Your task to perform on an android device: turn pop-ups off in chrome Image 0: 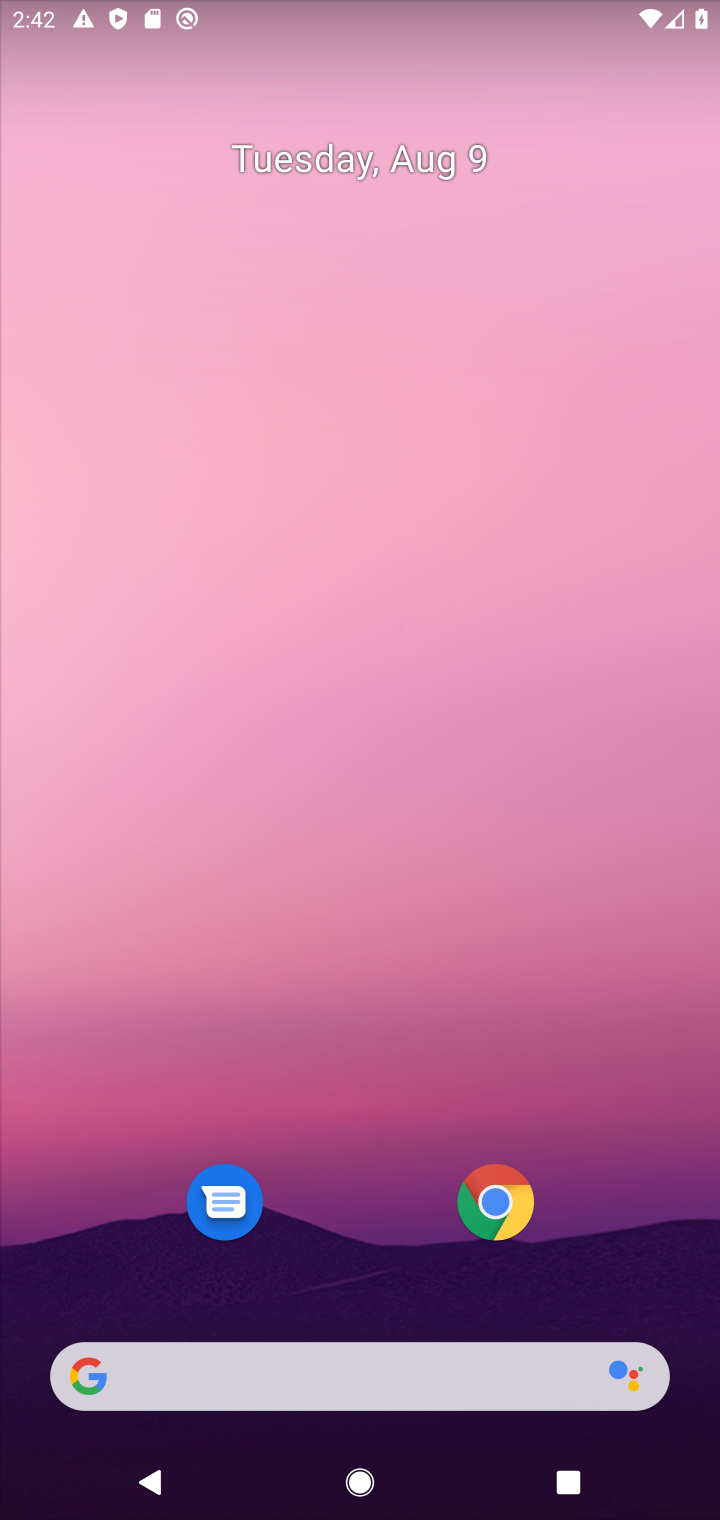
Step 0: press home button
Your task to perform on an android device: turn pop-ups off in chrome Image 1: 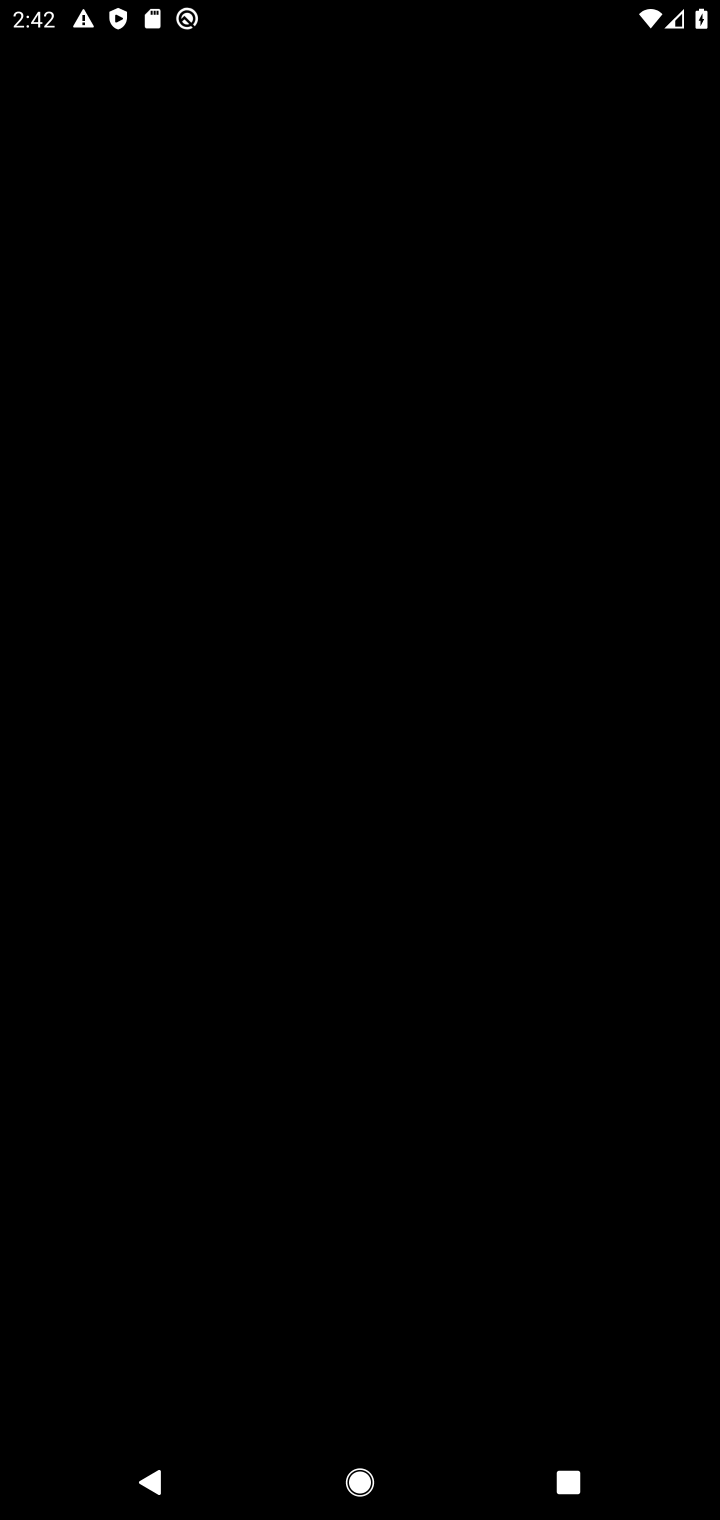
Step 1: drag from (509, 1371) to (544, 734)
Your task to perform on an android device: turn pop-ups off in chrome Image 2: 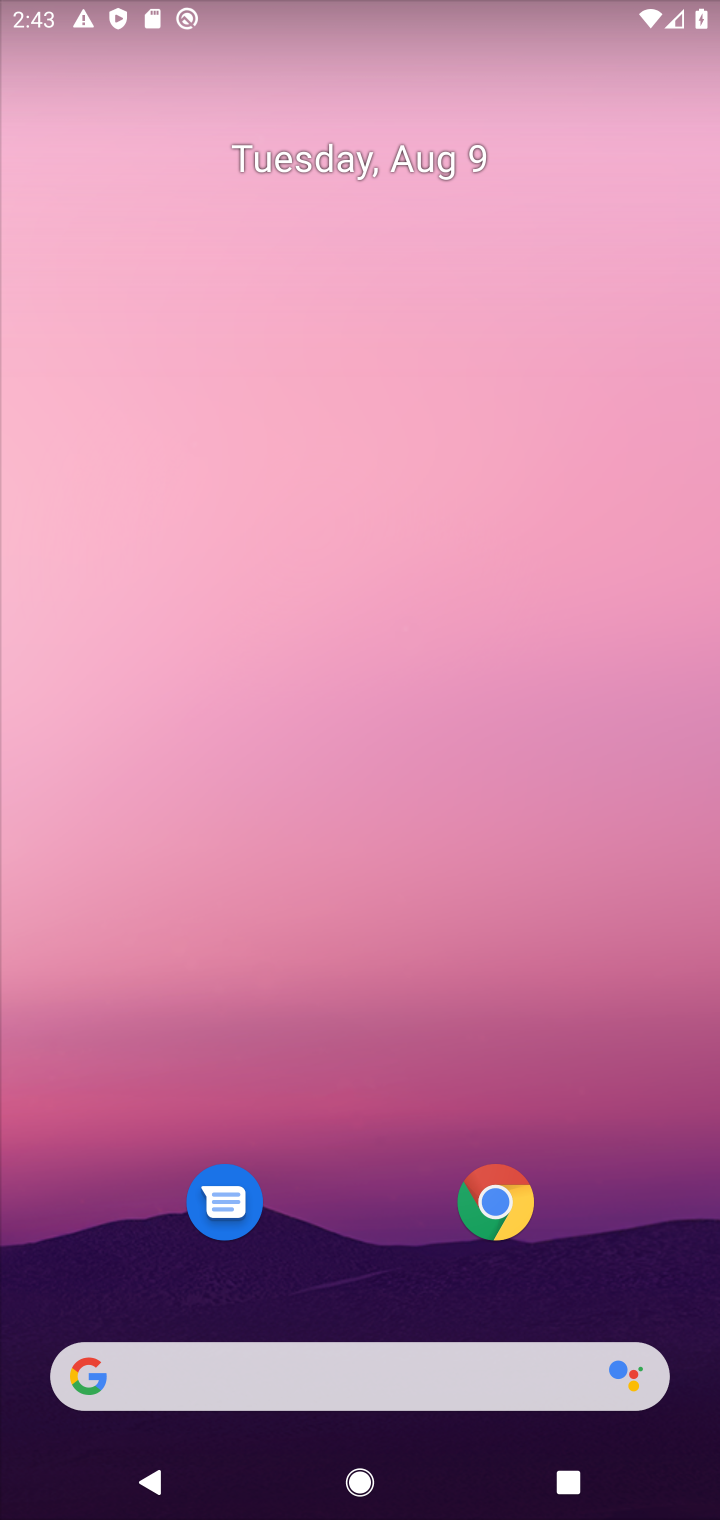
Step 2: click (499, 1194)
Your task to perform on an android device: turn pop-ups off in chrome Image 3: 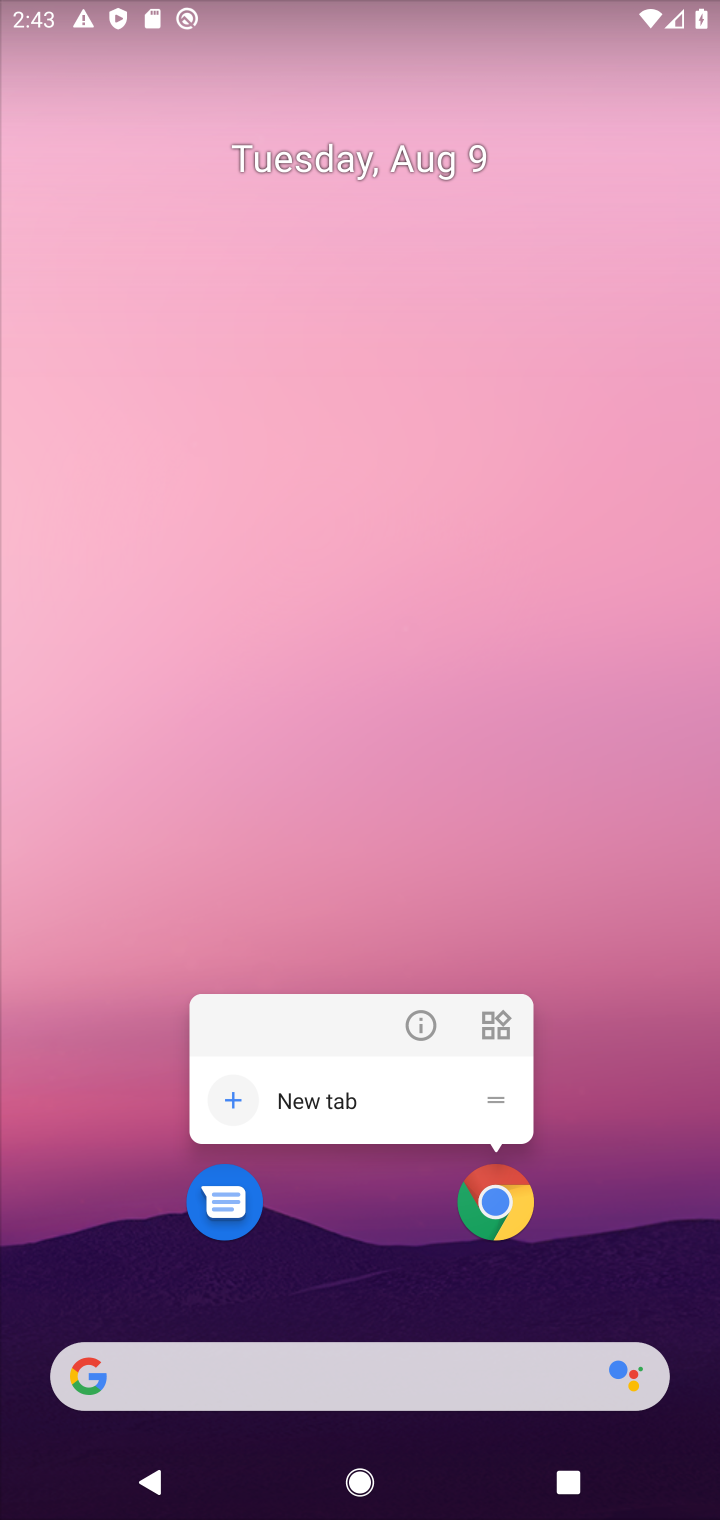
Step 3: click (501, 1193)
Your task to perform on an android device: turn pop-ups off in chrome Image 4: 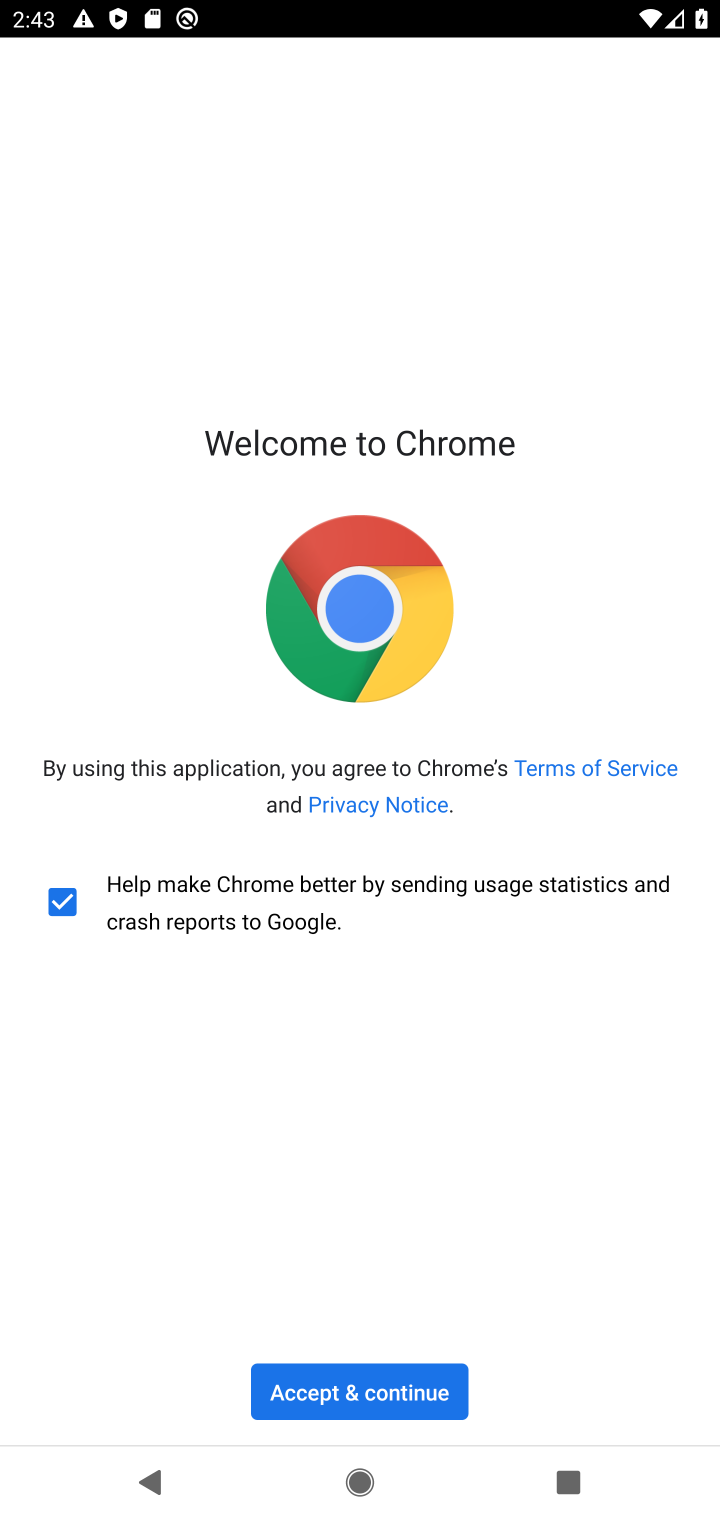
Step 4: click (385, 1397)
Your task to perform on an android device: turn pop-ups off in chrome Image 5: 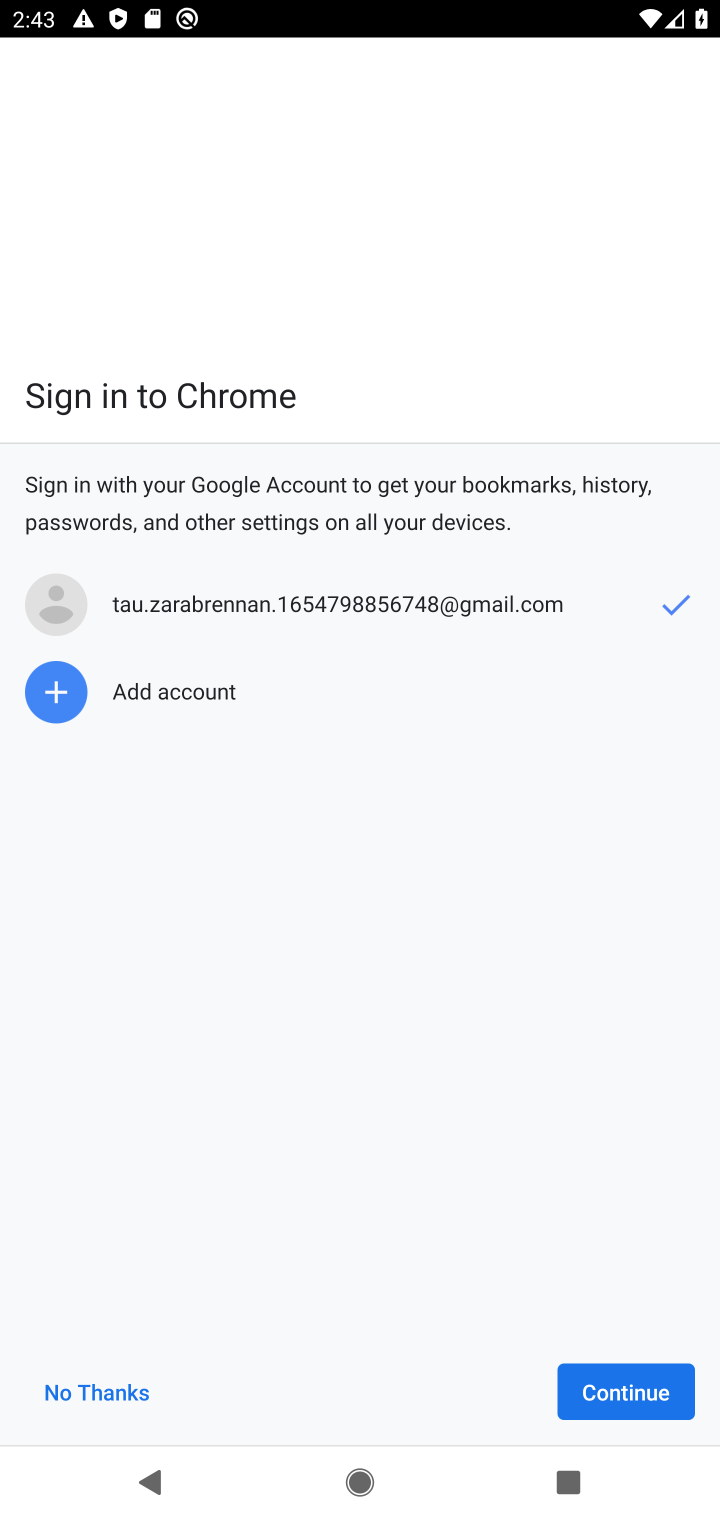
Step 5: click (637, 1396)
Your task to perform on an android device: turn pop-ups off in chrome Image 6: 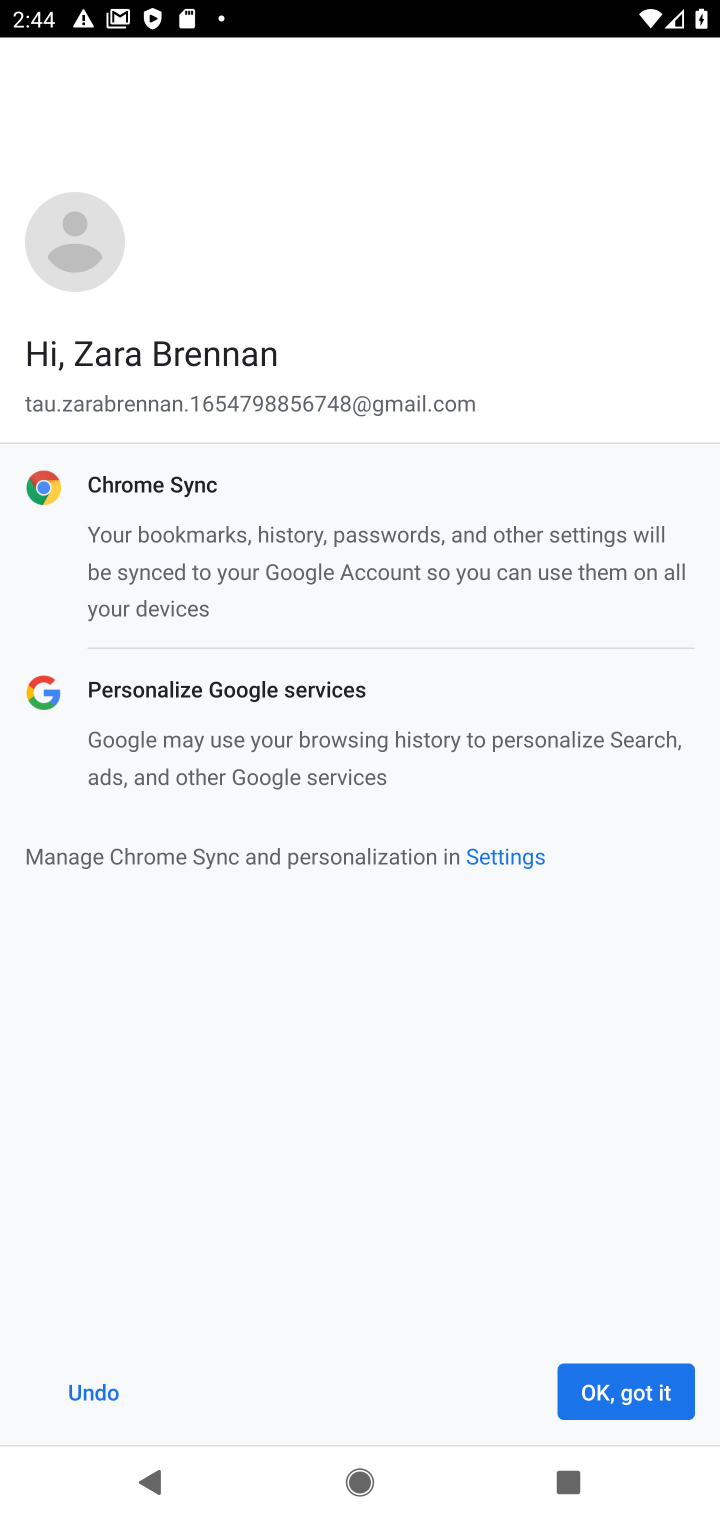
Step 6: click (644, 1388)
Your task to perform on an android device: turn pop-ups off in chrome Image 7: 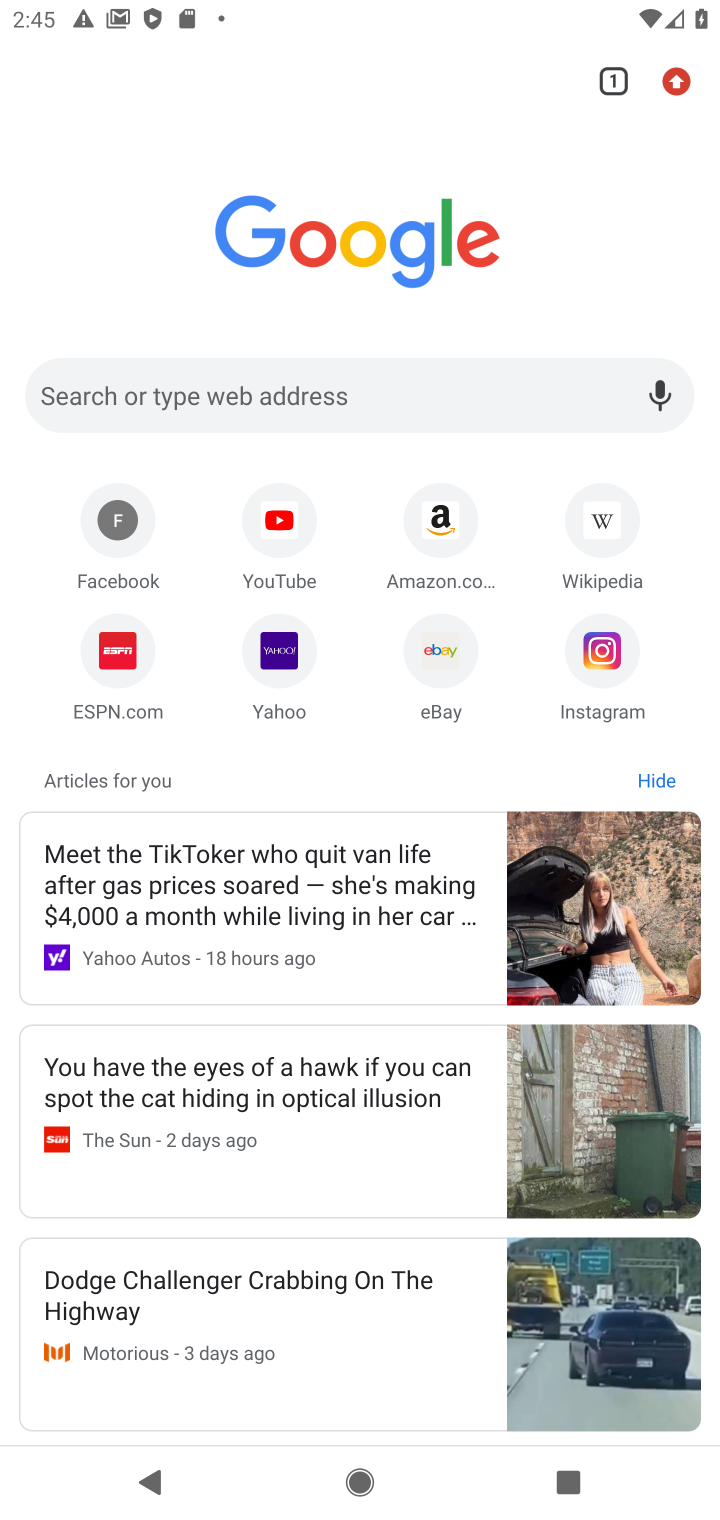
Step 7: drag from (686, 71) to (378, 743)
Your task to perform on an android device: turn pop-ups off in chrome Image 8: 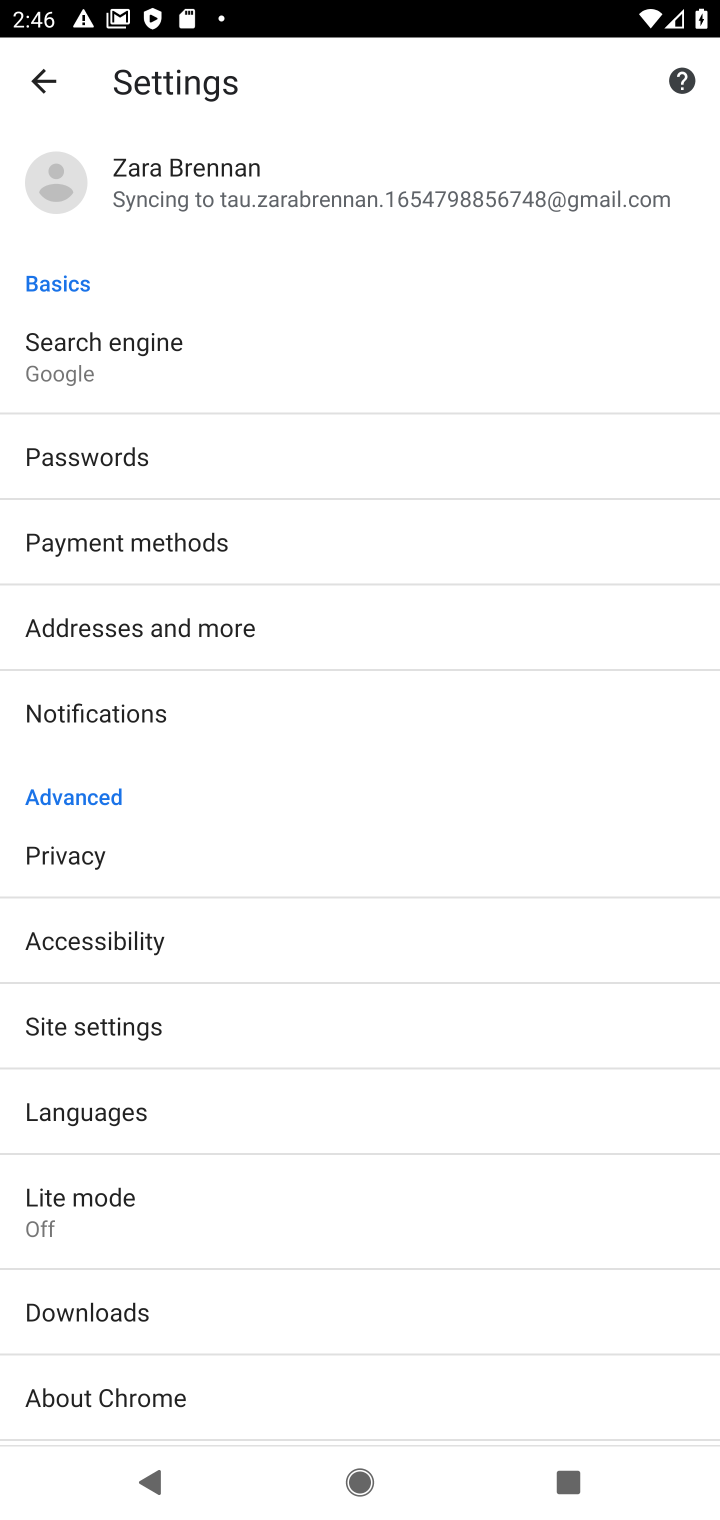
Step 8: click (141, 1026)
Your task to perform on an android device: turn pop-ups off in chrome Image 9: 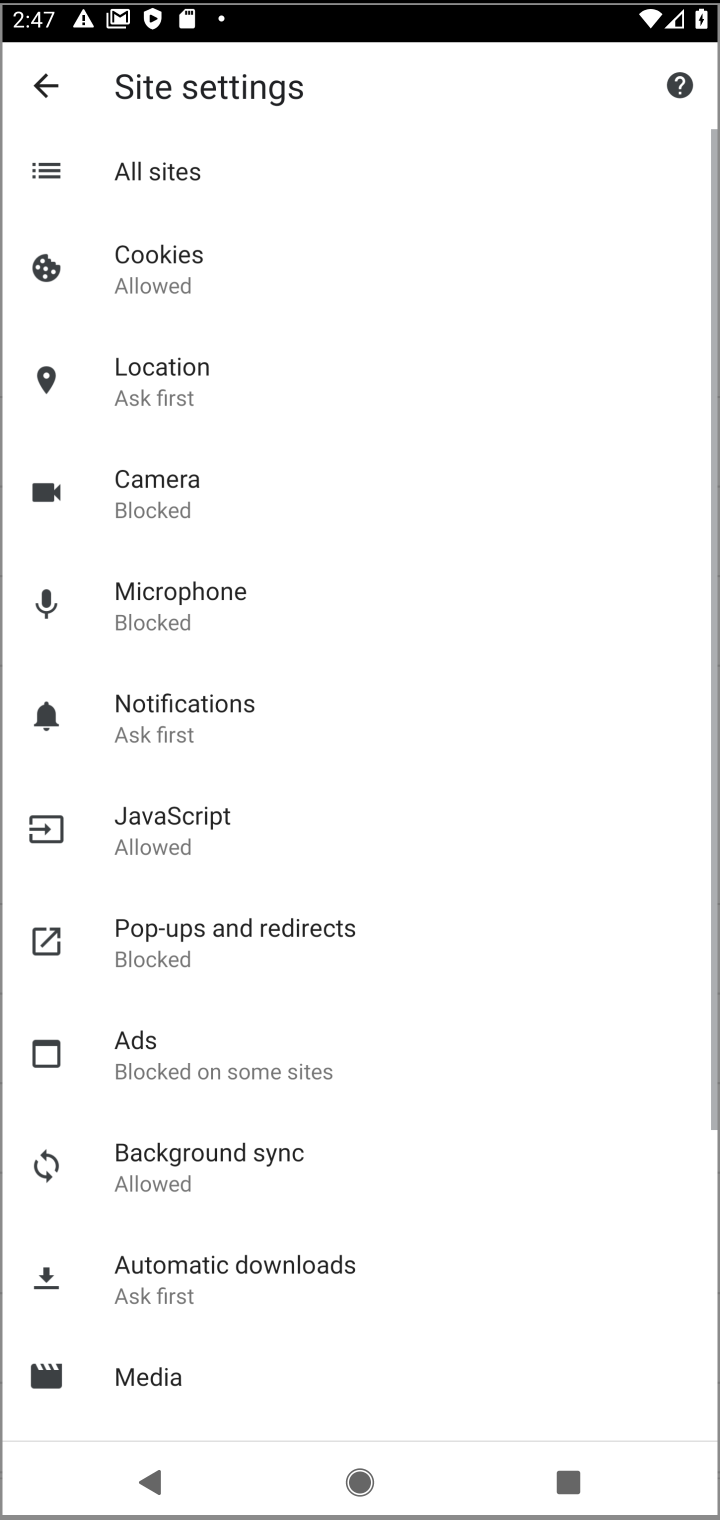
Step 9: click (108, 929)
Your task to perform on an android device: turn pop-ups off in chrome Image 10: 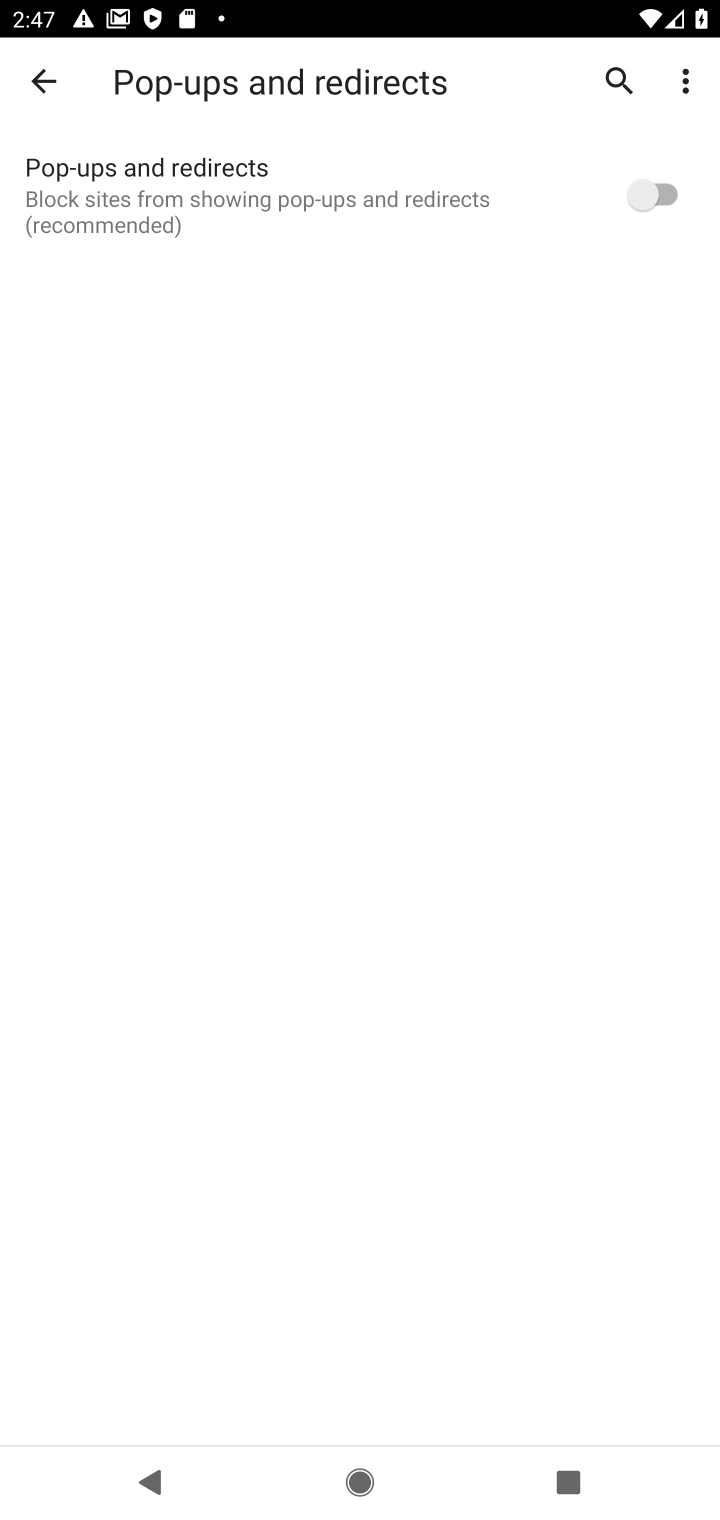
Step 10: task complete